Your task to perform on an android device: Go to location settings Image 0: 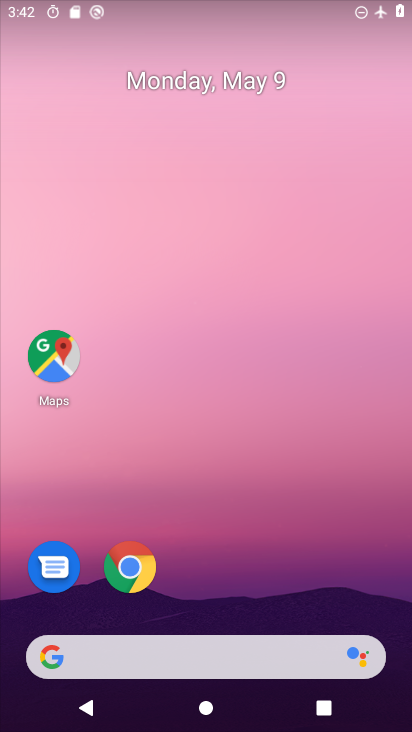
Step 0: drag from (262, 444) to (203, 70)
Your task to perform on an android device: Go to location settings Image 1: 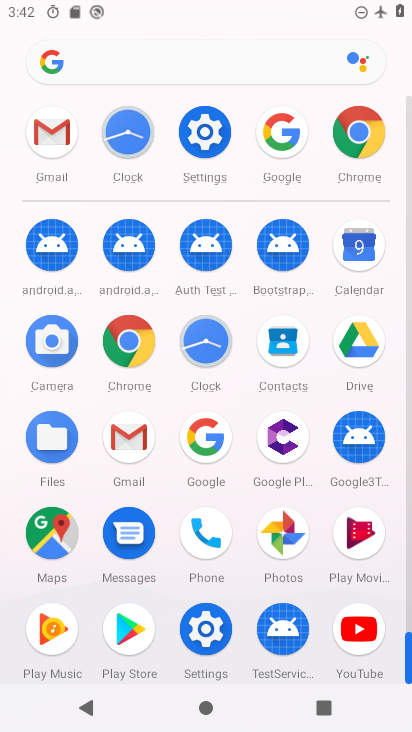
Step 1: click (210, 127)
Your task to perform on an android device: Go to location settings Image 2: 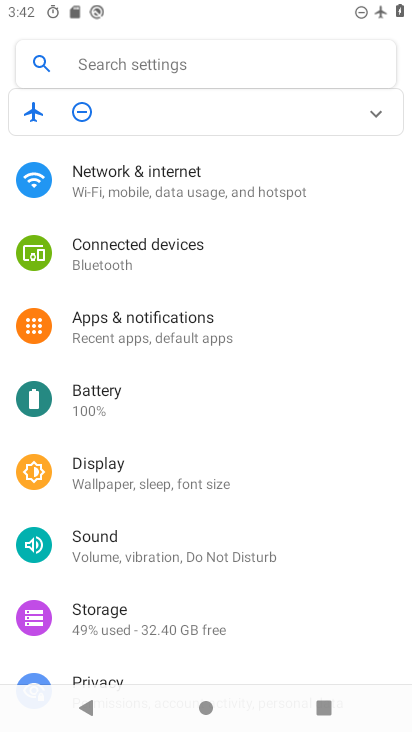
Step 2: drag from (178, 562) to (145, 212)
Your task to perform on an android device: Go to location settings Image 3: 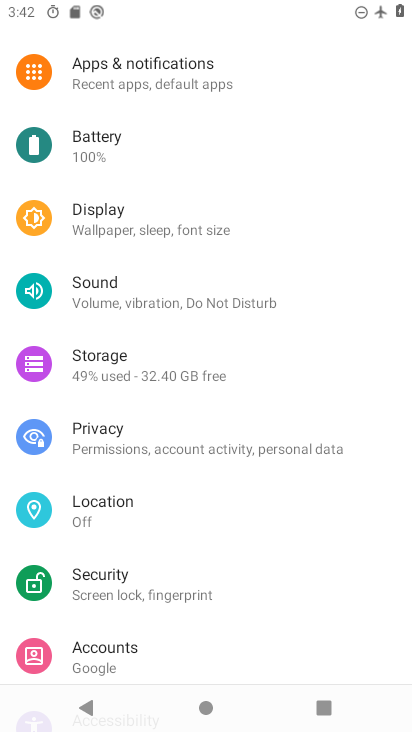
Step 3: click (142, 538)
Your task to perform on an android device: Go to location settings Image 4: 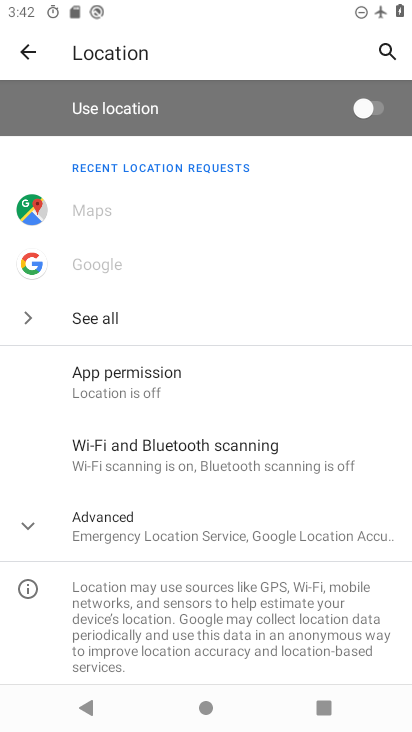
Step 4: task complete